Your task to perform on an android device: toggle airplane mode Image 0: 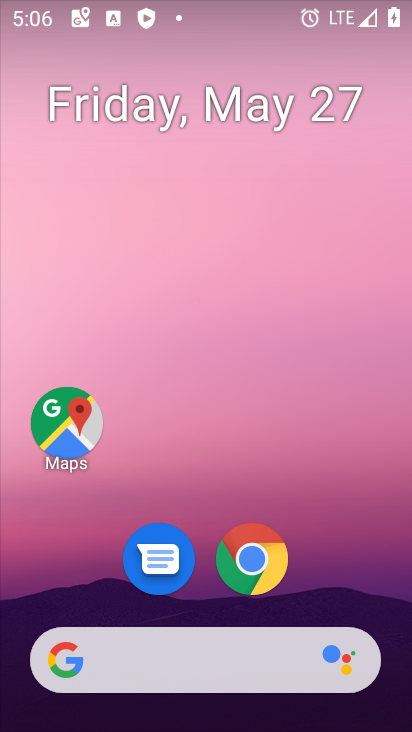
Step 0: drag from (253, 677) to (339, 4)
Your task to perform on an android device: toggle airplane mode Image 1: 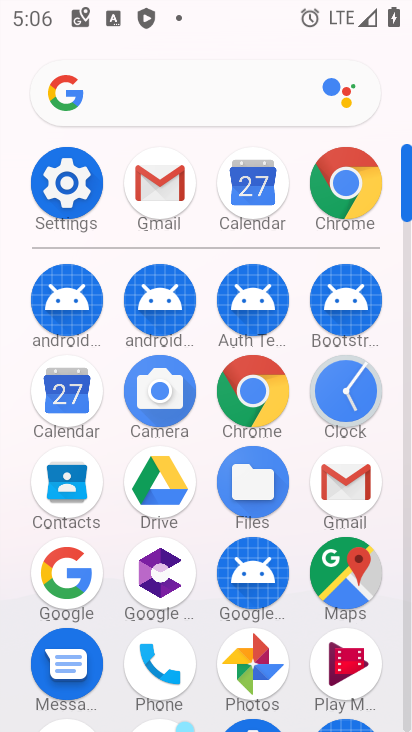
Step 1: click (85, 201)
Your task to perform on an android device: toggle airplane mode Image 2: 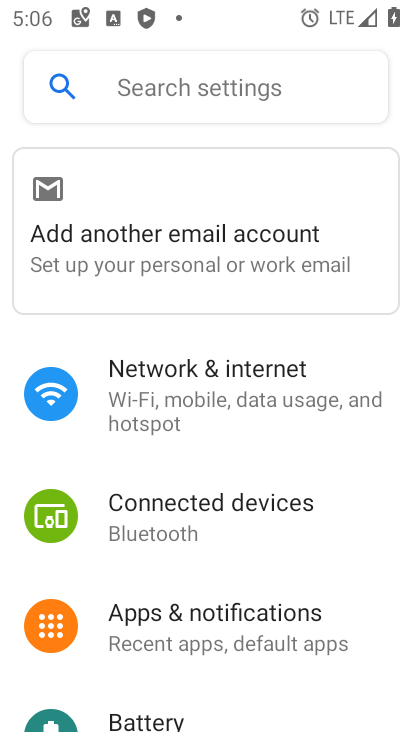
Step 2: click (247, 389)
Your task to perform on an android device: toggle airplane mode Image 3: 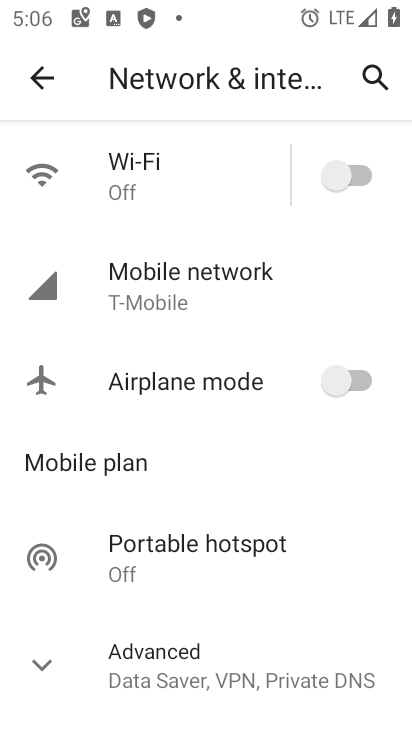
Step 3: click (353, 387)
Your task to perform on an android device: toggle airplane mode Image 4: 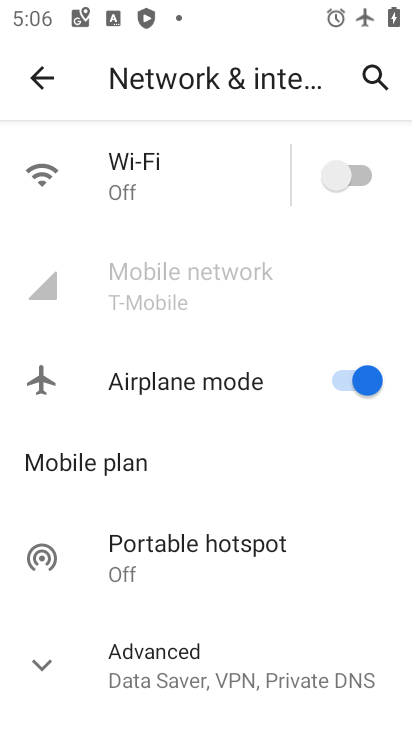
Step 4: task complete